Your task to perform on an android device: turn off translation in the chrome app Image 0: 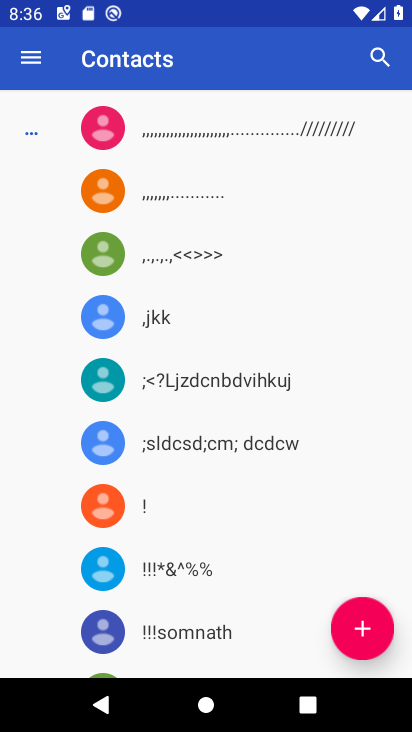
Step 0: press home button
Your task to perform on an android device: turn off translation in the chrome app Image 1: 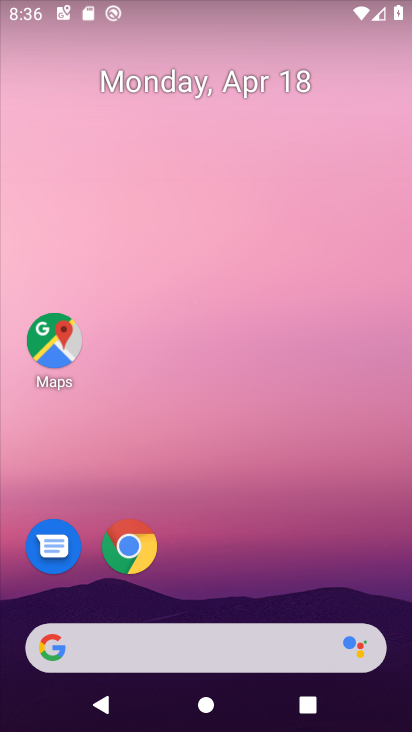
Step 1: click (143, 566)
Your task to perform on an android device: turn off translation in the chrome app Image 2: 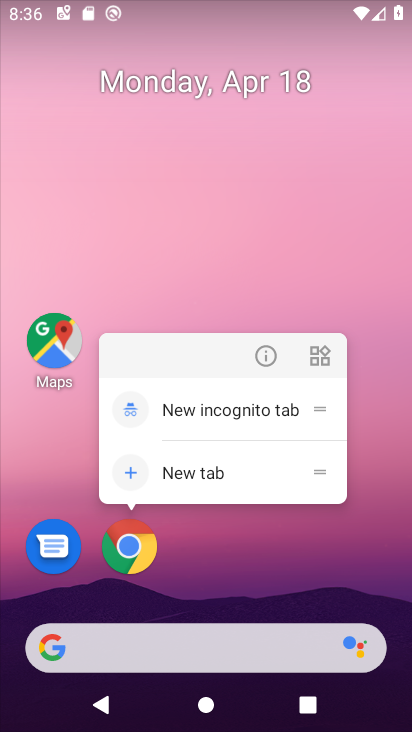
Step 2: click (143, 566)
Your task to perform on an android device: turn off translation in the chrome app Image 3: 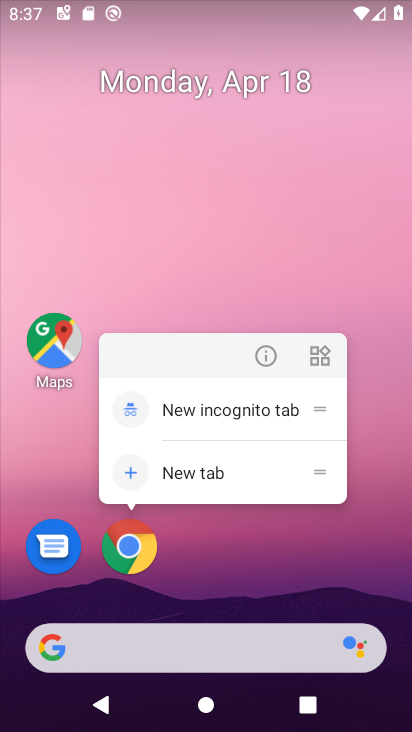
Step 3: click (143, 566)
Your task to perform on an android device: turn off translation in the chrome app Image 4: 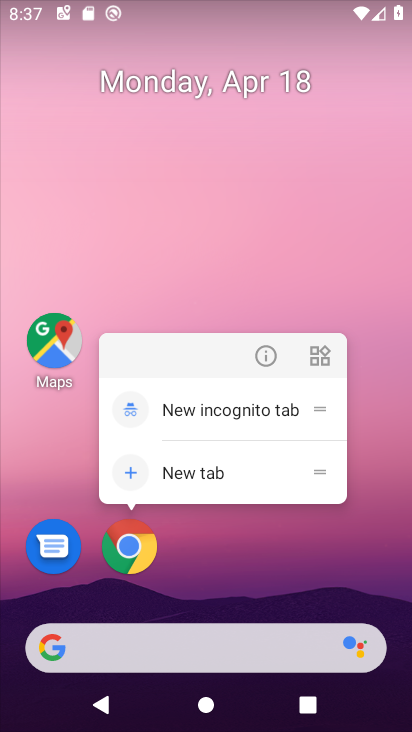
Step 4: drag from (359, 593) to (348, 109)
Your task to perform on an android device: turn off translation in the chrome app Image 5: 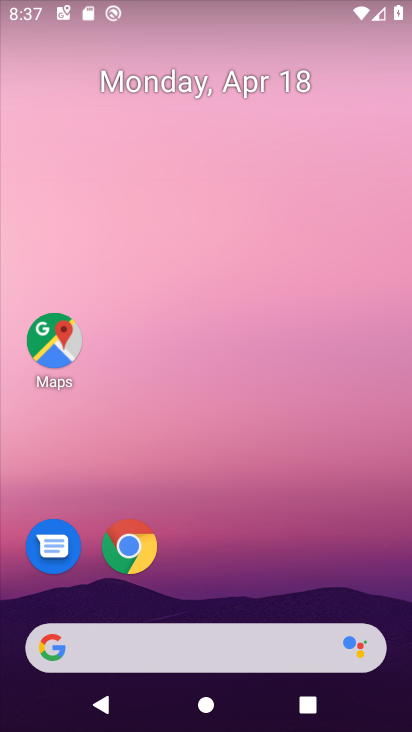
Step 5: drag from (324, 575) to (281, 172)
Your task to perform on an android device: turn off translation in the chrome app Image 6: 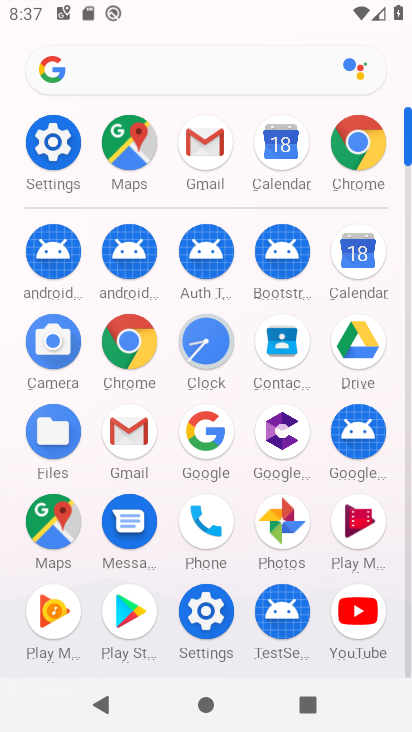
Step 6: click (124, 363)
Your task to perform on an android device: turn off translation in the chrome app Image 7: 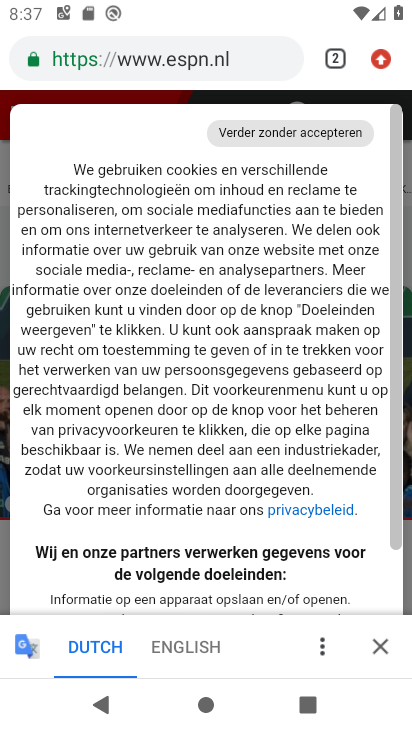
Step 7: drag from (377, 73) to (265, 584)
Your task to perform on an android device: turn off translation in the chrome app Image 8: 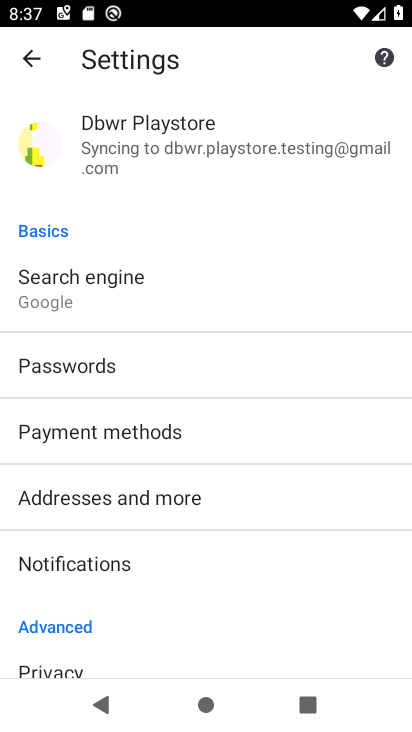
Step 8: drag from (240, 648) to (215, 59)
Your task to perform on an android device: turn off translation in the chrome app Image 9: 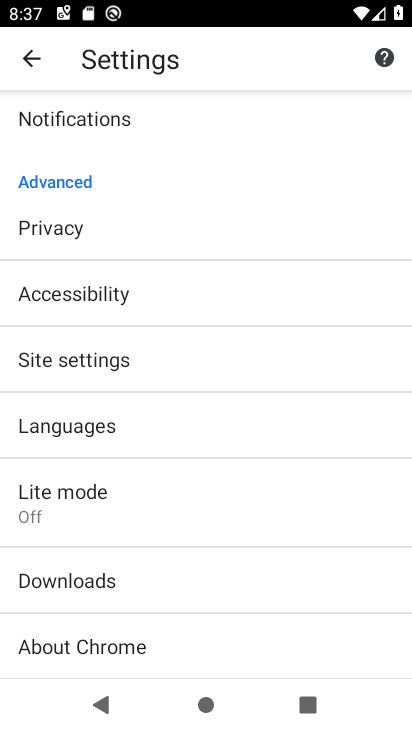
Step 9: click (144, 419)
Your task to perform on an android device: turn off translation in the chrome app Image 10: 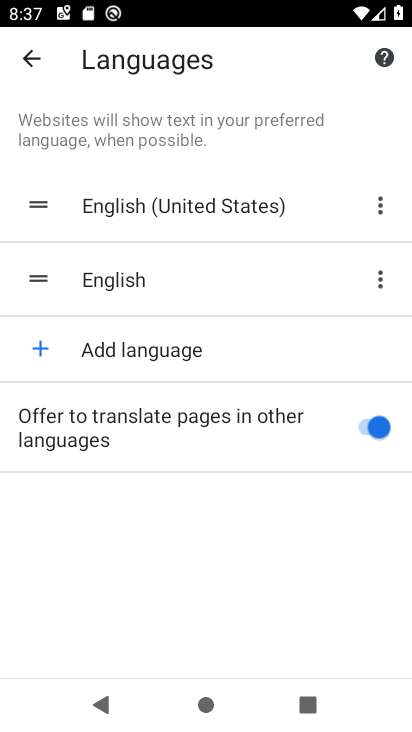
Step 10: click (379, 416)
Your task to perform on an android device: turn off translation in the chrome app Image 11: 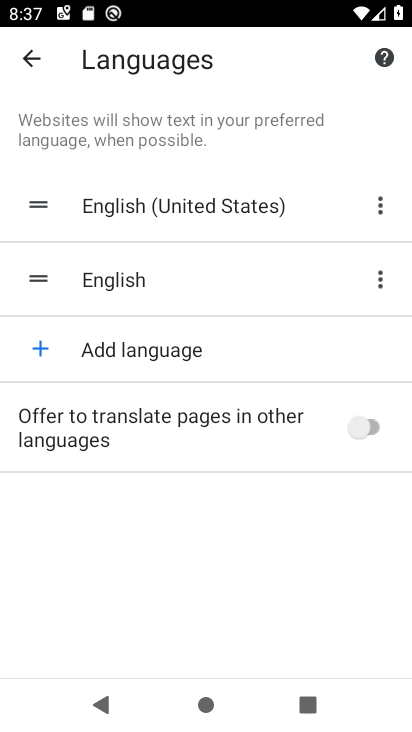
Step 11: task complete